Your task to perform on an android device: Go to network settings Image 0: 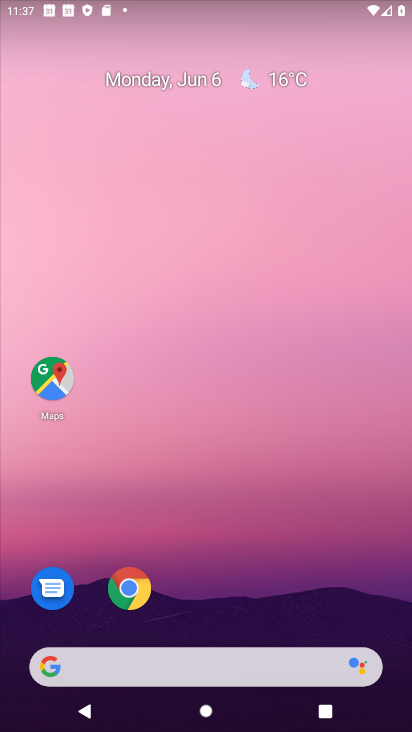
Step 0: drag from (242, 575) to (163, 77)
Your task to perform on an android device: Go to network settings Image 1: 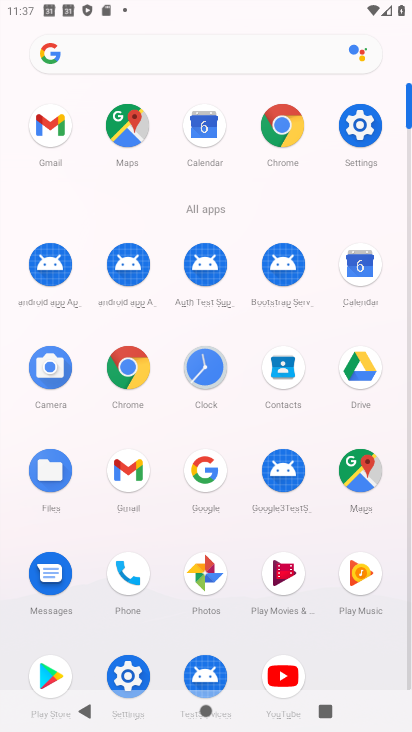
Step 1: click (361, 125)
Your task to perform on an android device: Go to network settings Image 2: 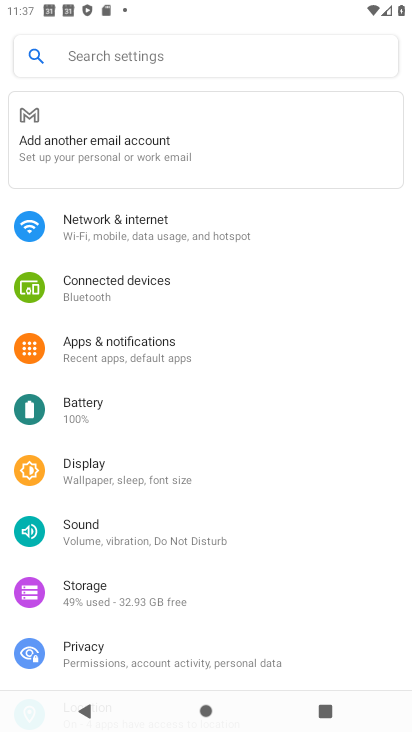
Step 2: click (163, 226)
Your task to perform on an android device: Go to network settings Image 3: 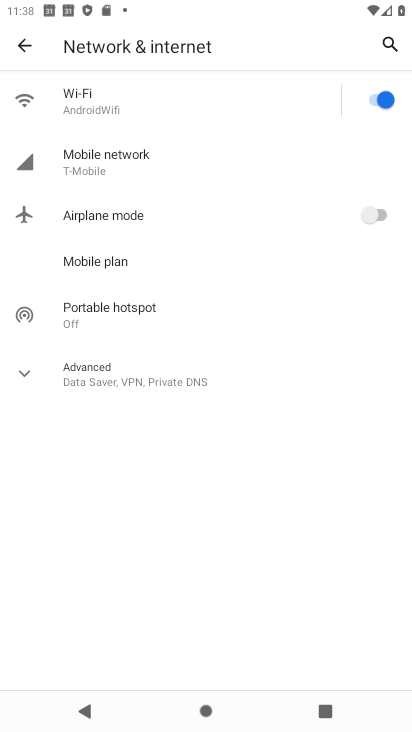
Step 3: click (196, 159)
Your task to perform on an android device: Go to network settings Image 4: 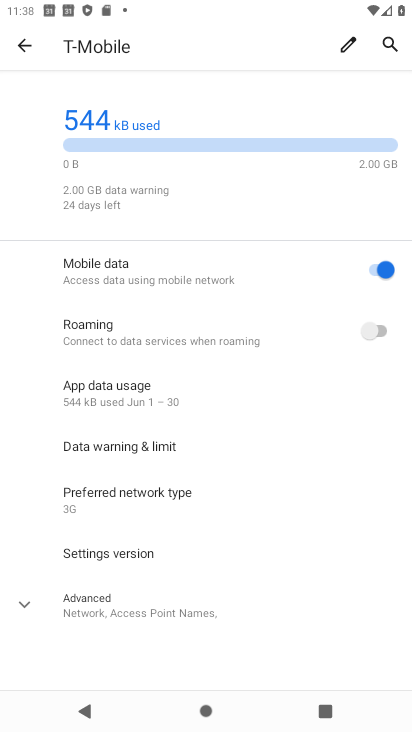
Step 4: task complete